Your task to perform on an android device: Open sound settings Image 0: 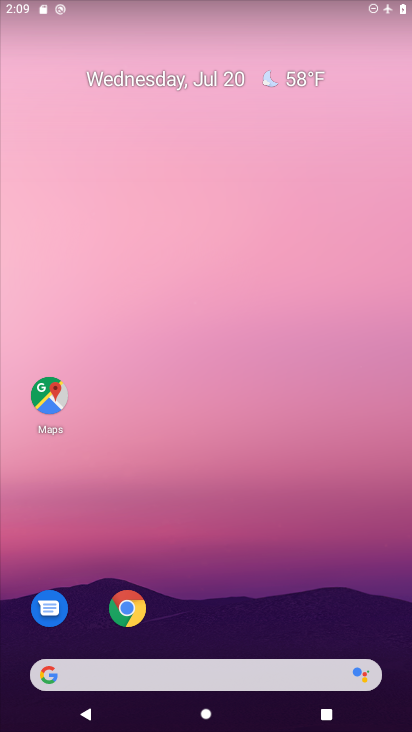
Step 0: drag from (239, 718) to (228, 118)
Your task to perform on an android device: Open sound settings Image 1: 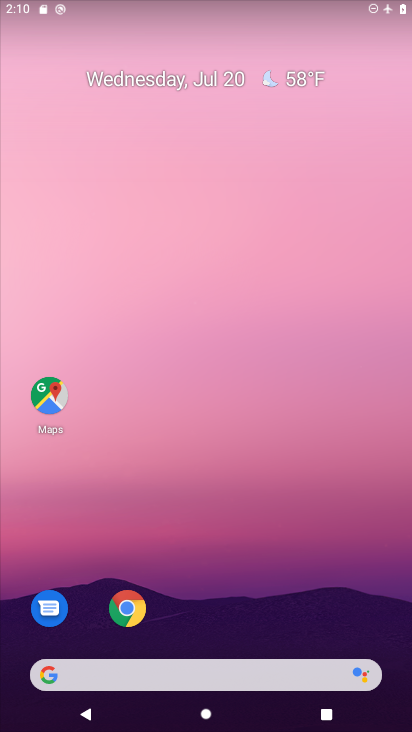
Step 1: drag from (224, 725) to (224, 185)
Your task to perform on an android device: Open sound settings Image 2: 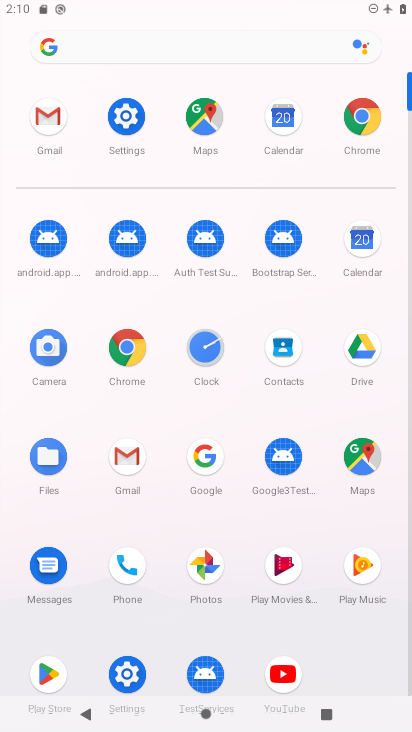
Step 2: click (131, 117)
Your task to perform on an android device: Open sound settings Image 3: 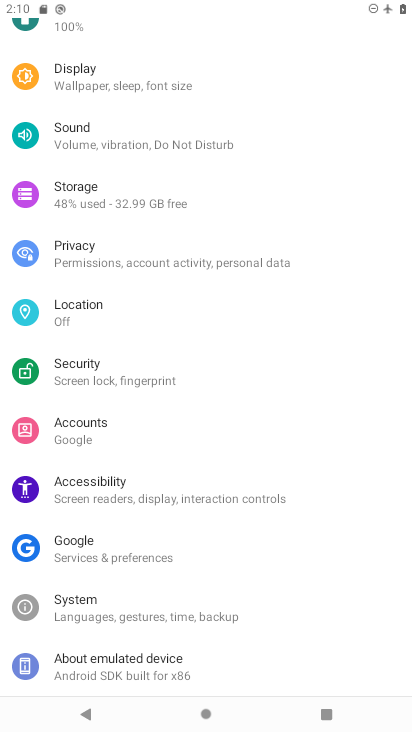
Step 3: click (86, 134)
Your task to perform on an android device: Open sound settings Image 4: 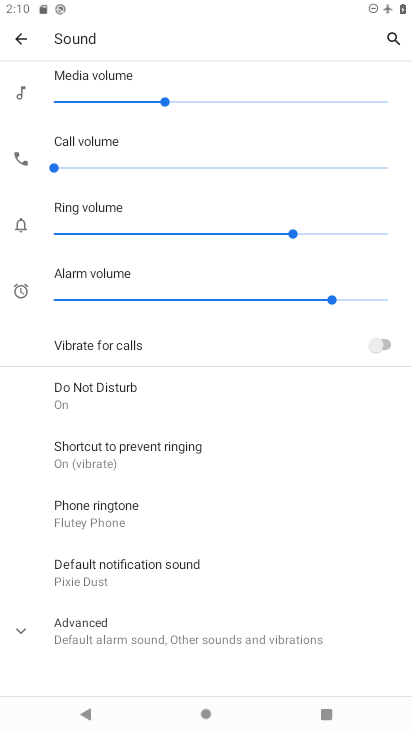
Step 4: task complete